Your task to perform on an android device: Open the contacts Image 0: 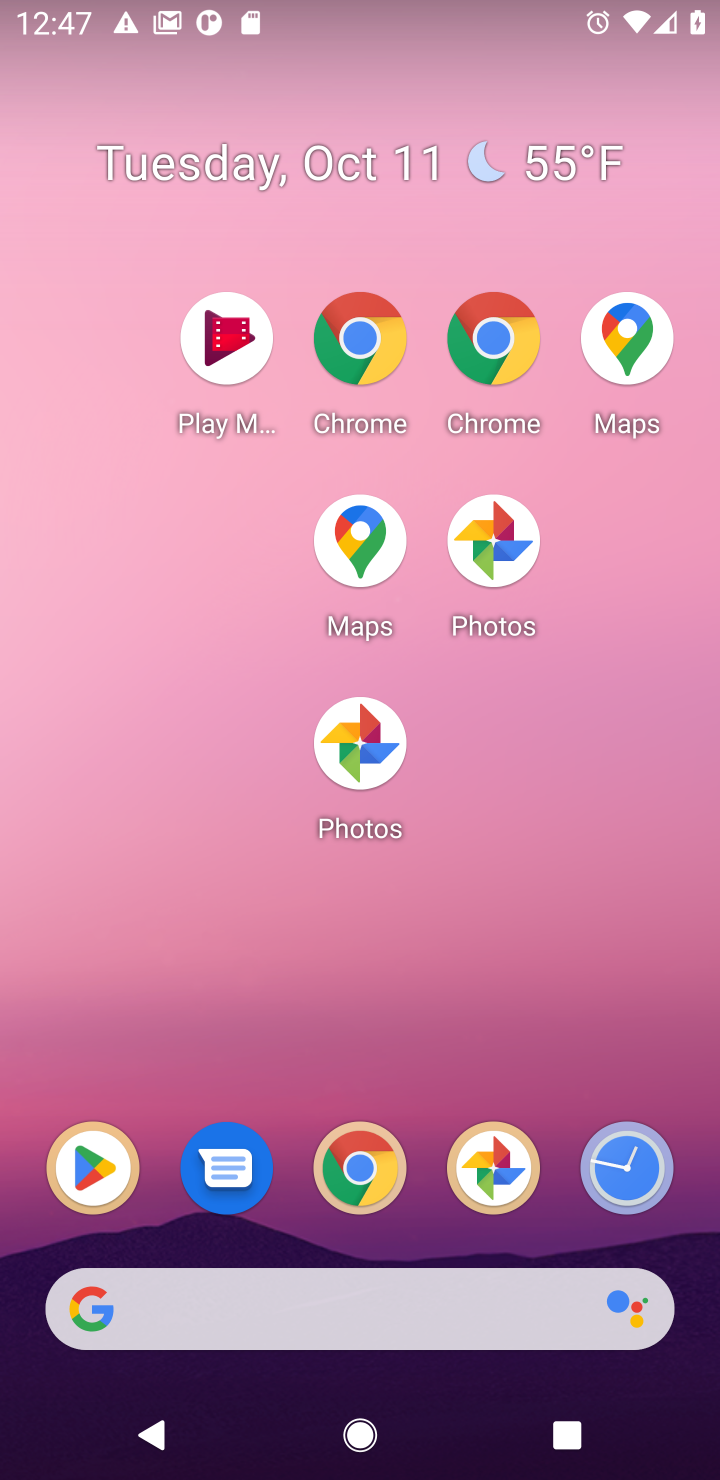
Step 0: drag from (479, 1162) to (538, 39)
Your task to perform on an android device: Open the contacts Image 1: 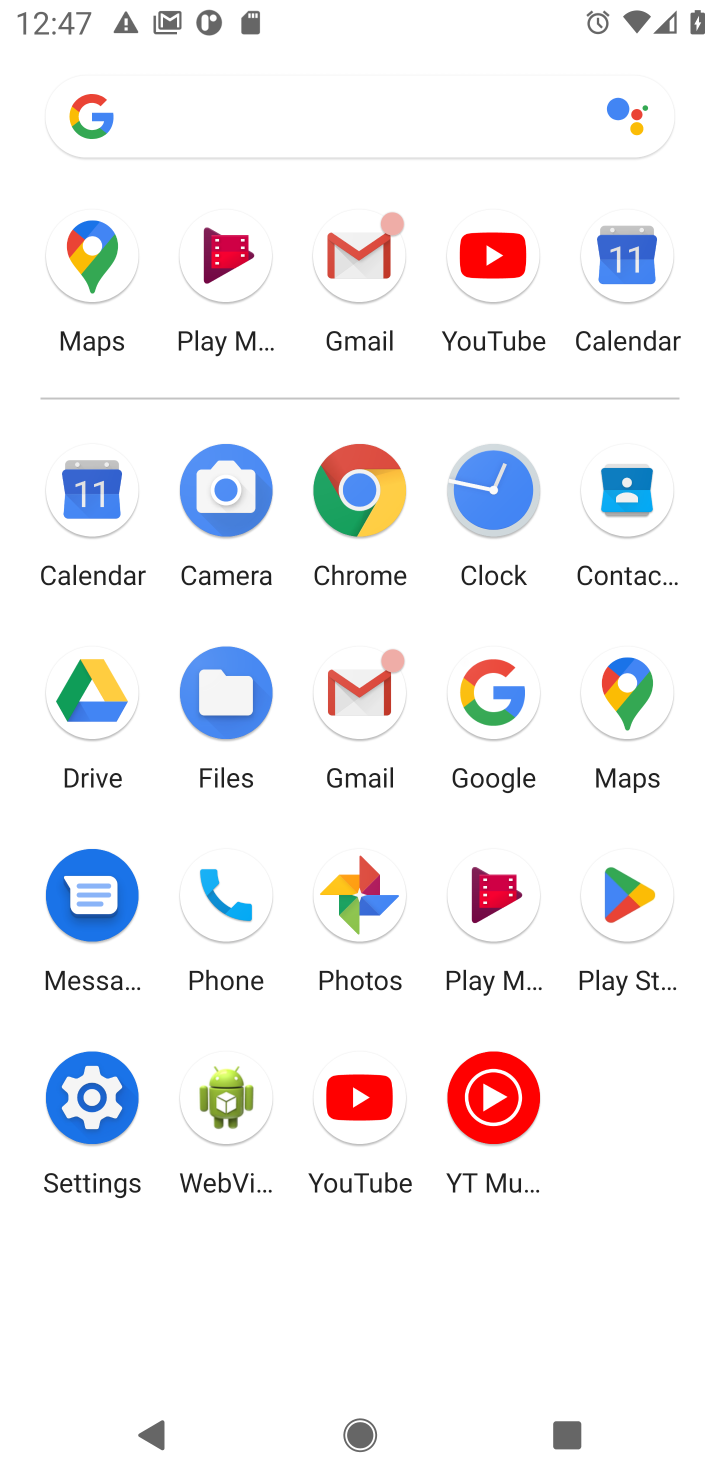
Step 1: click (621, 542)
Your task to perform on an android device: Open the contacts Image 2: 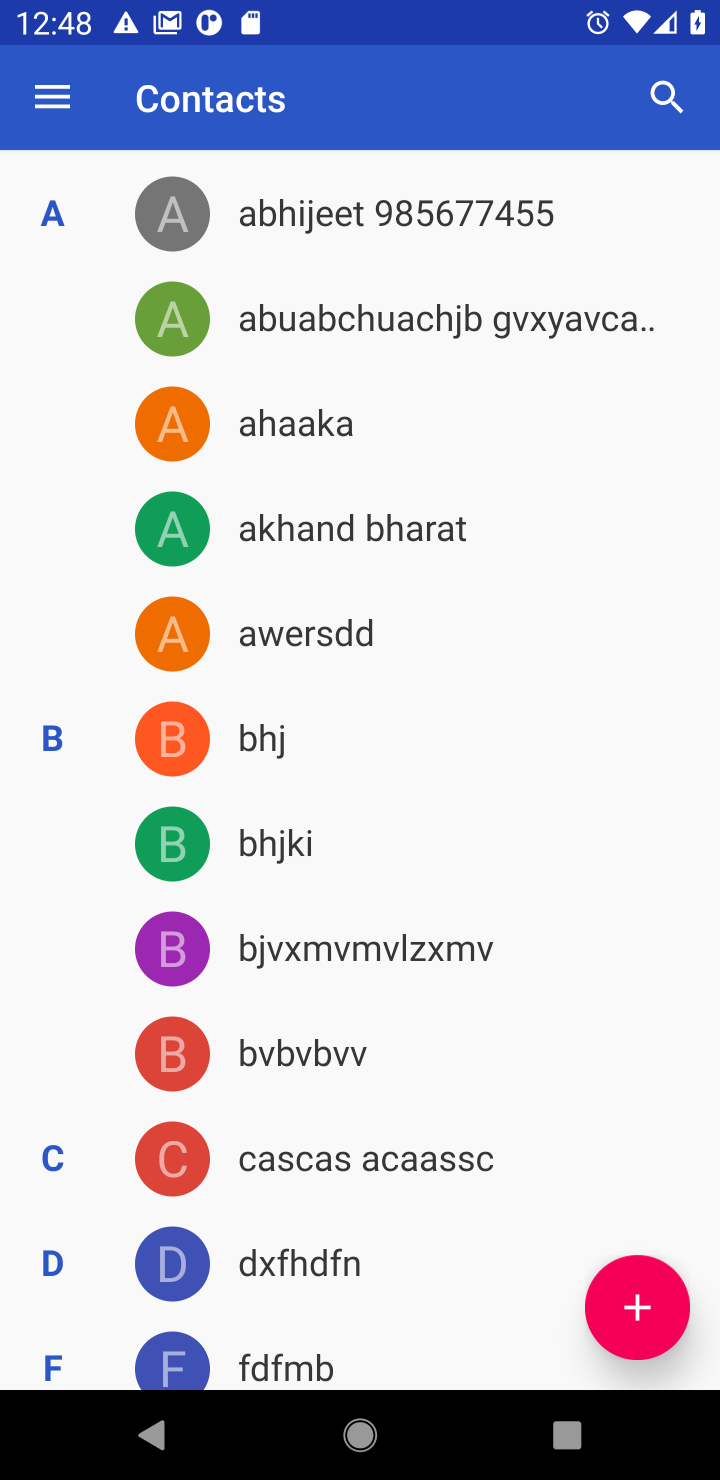
Step 2: task complete